Your task to perform on an android device: Show me popular games on the Play Store Image 0: 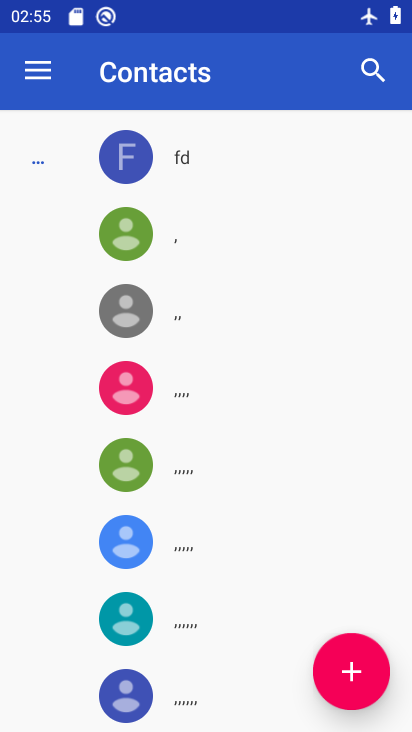
Step 0: press home button
Your task to perform on an android device: Show me popular games on the Play Store Image 1: 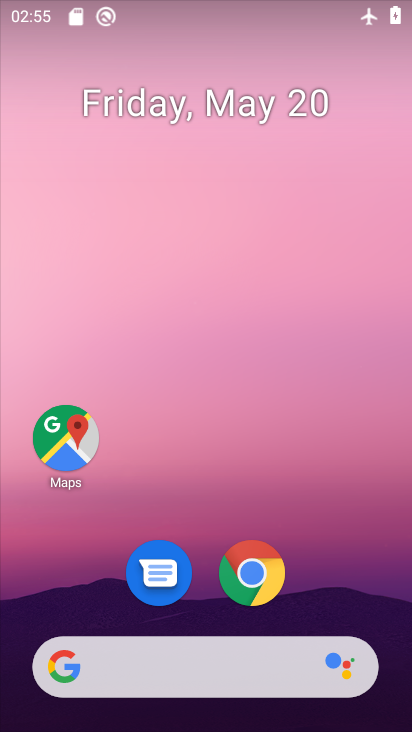
Step 1: drag from (187, 612) to (194, 241)
Your task to perform on an android device: Show me popular games on the Play Store Image 2: 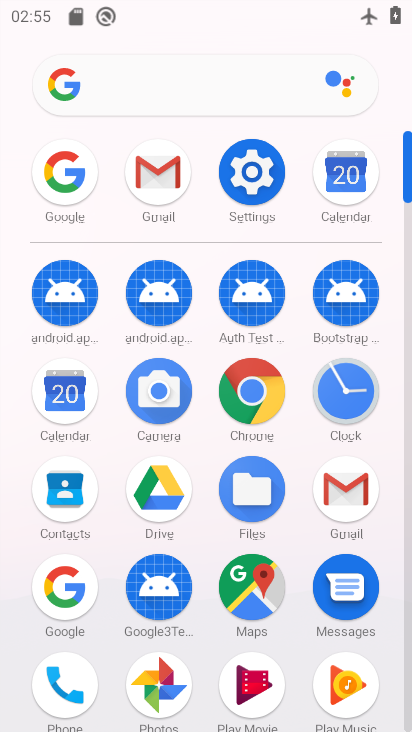
Step 2: drag from (188, 609) to (235, 300)
Your task to perform on an android device: Show me popular games on the Play Store Image 3: 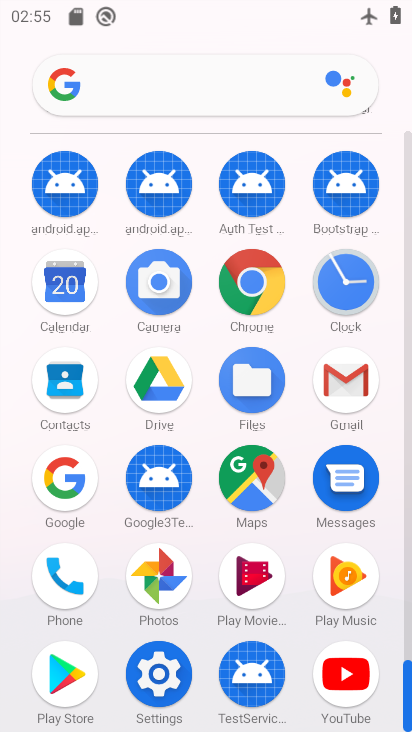
Step 3: click (88, 644)
Your task to perform on an android device: Show me popular games on the Play Store Image 4: 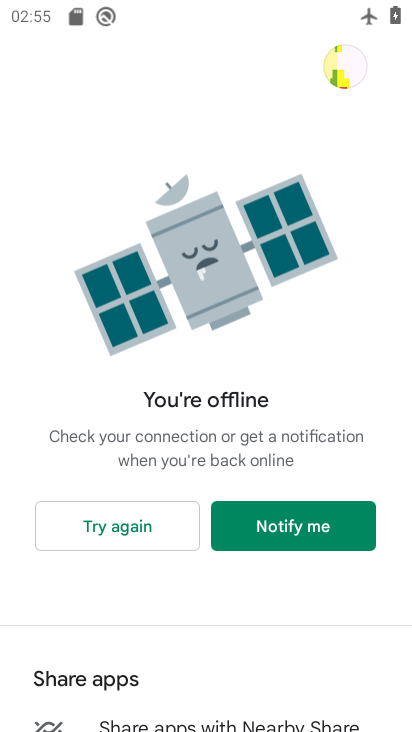
Step 4: task complete